Your task to perform on an android device: open app "Microsoft Excel" Image 0: 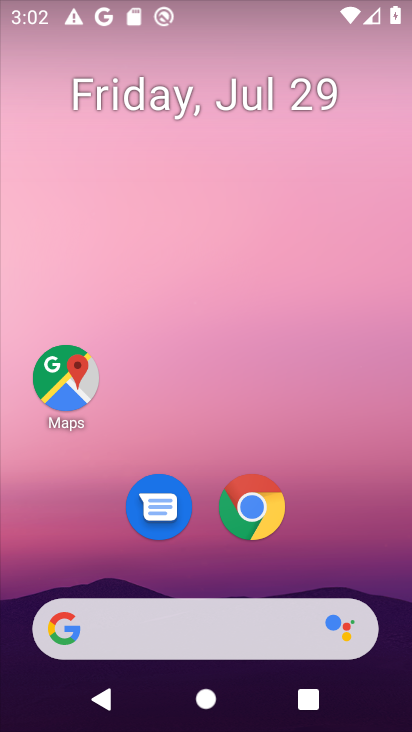
Step 0: drag from (212, 588) to (212, 172)
Your task to perform on an android device: open app "Microsoft Excel" Image 1: 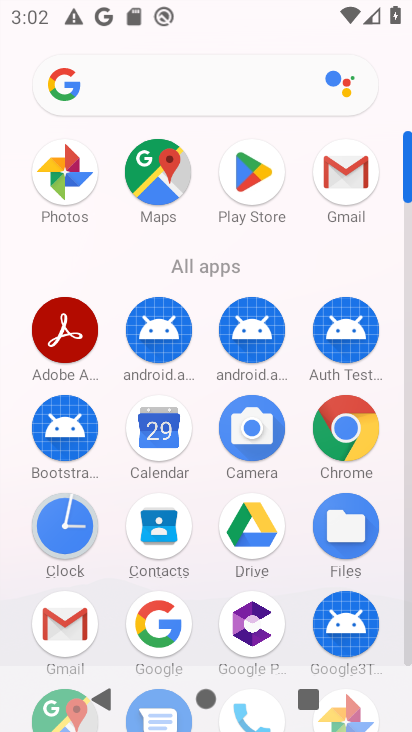
Step 1: click (212, 99)
Your task to perform on an android device: open app "Microsoft Excel" Image 2: 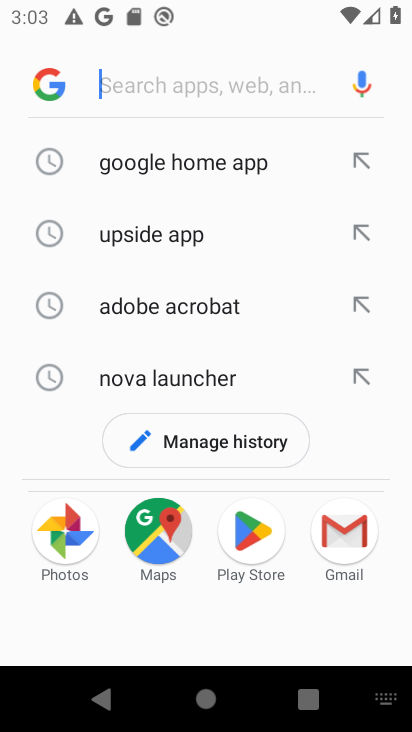
Step 2: type "microsoft excel"
Your task to perform on an android device: open app "Microsoft Excel" Image 3: 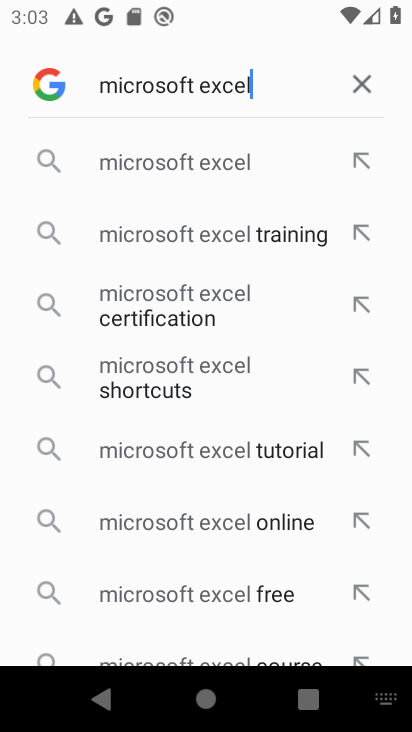
Step 3: click (218, 171)
Your task to perform on an android device: open app "Microsoft Excel" Image 4: 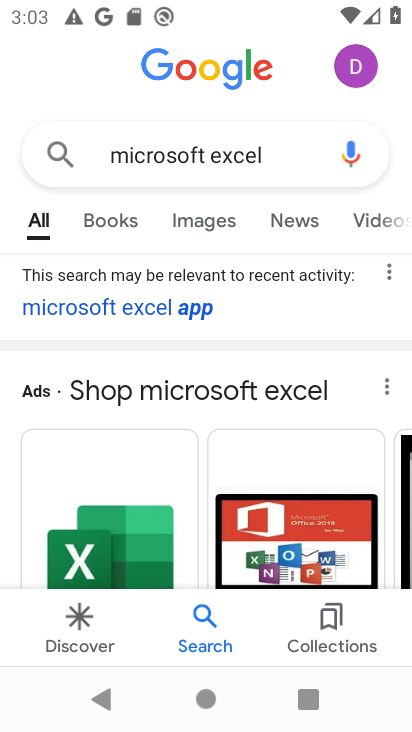
Step 4: task complete